Your task to perform on an android device: Open the web browser Image 0: 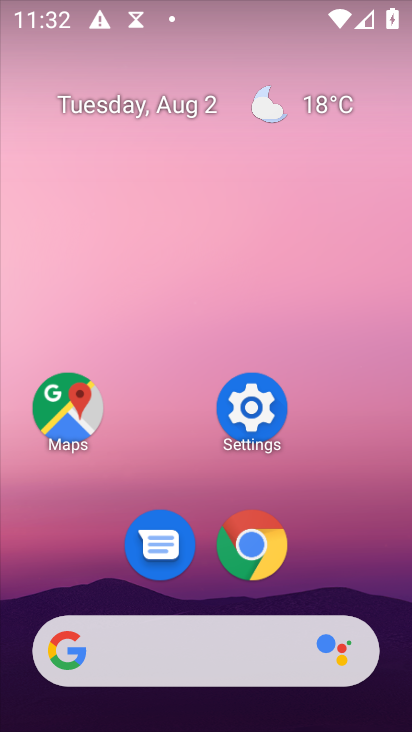
Step 0: click (253, 553)
Your task to perform on an android device: Open the web browser Image 1: 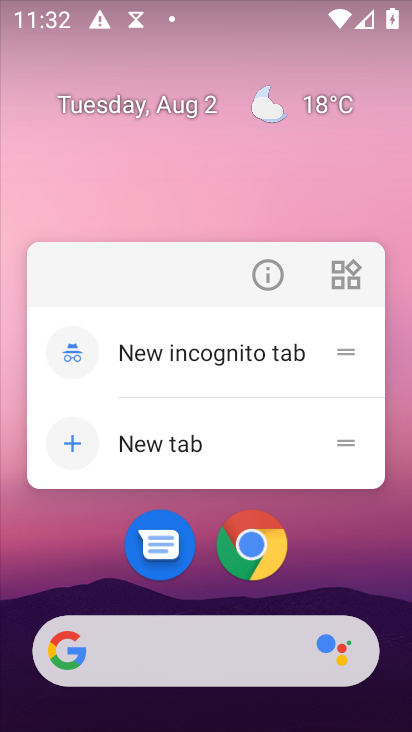
Step 1: click (249, 553)
Your task to perform on an android device: Open the web browser Image 2: 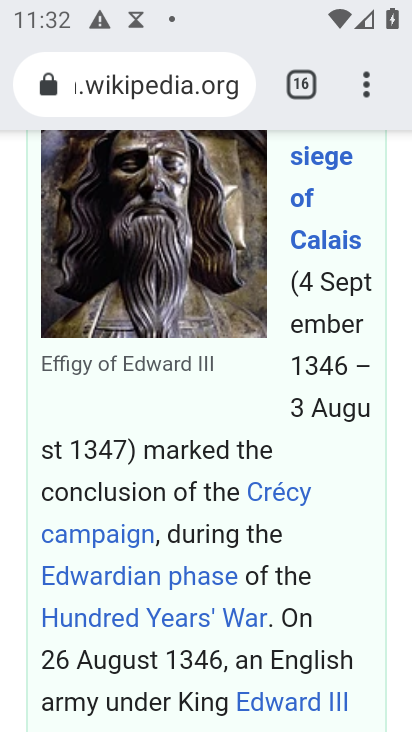
Step 2: task complete